Your task to perform on an android device: change alarm snooze length Image 0: 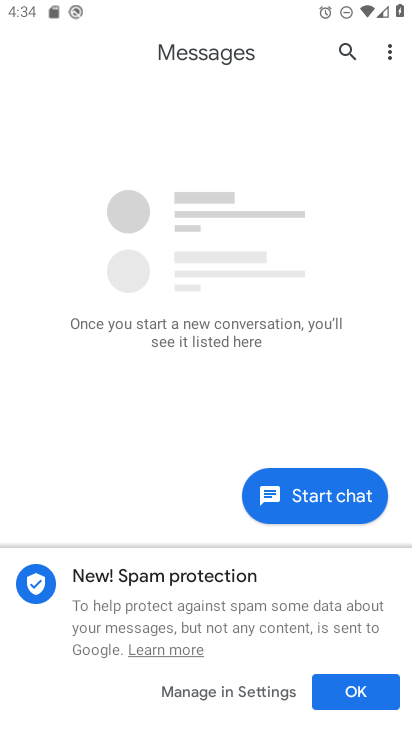
Step 0: press home button
Your task to perform on an android device: change alarm snooze length Image 1: 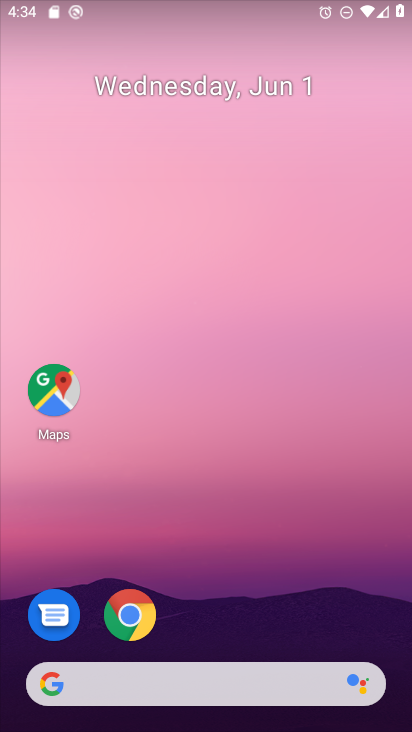
Step 1: click (221, 626)
Your task to perform on an android device: change alarm snooze length Image 2: 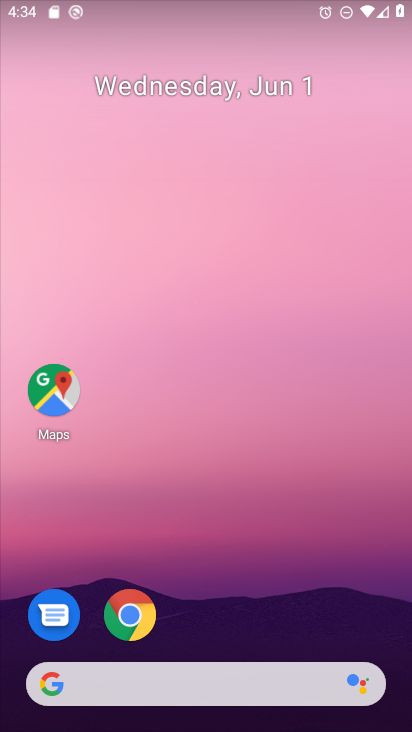
Step 2: click (221, 547)
Your task to perform on an android device: change alarm snooze length Image 3: 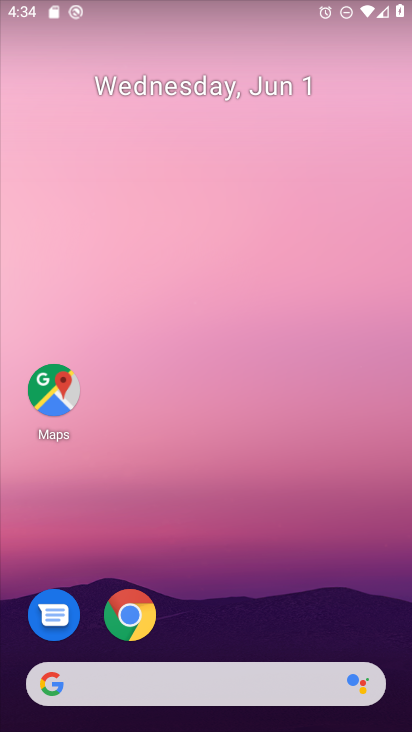
Step 3: drag from (221, 176) to (227, 71)
Your task to perform on an android device: change alarm snooze length Image 4: 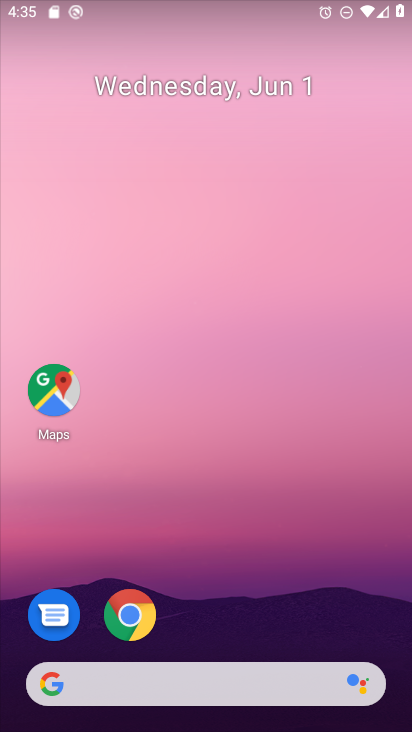
Step 4: drag from (224, 617) to (259, 50)
Your task to perform on an android device: change alarm snooze length Image 5: 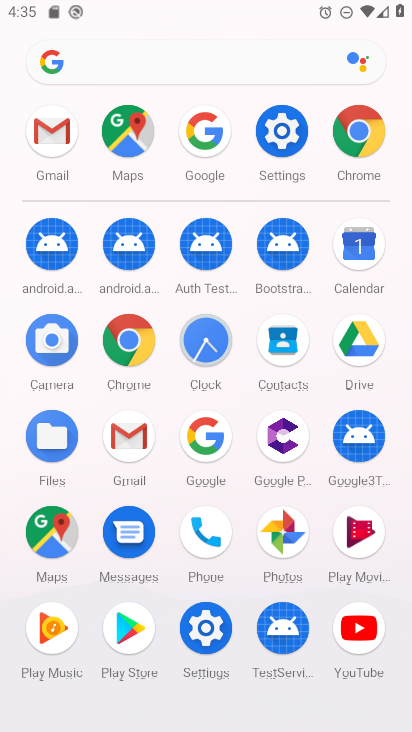
Step 5: click (205, 342)
Your task to perform on an android device: change alarm snooze length Image 6: 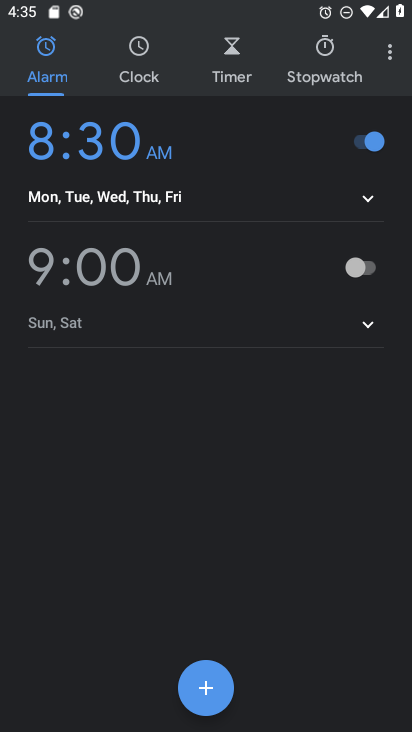
Step 6: click (386, 53)
Your task to perform on an android device: change alarm snooze length Image 7: 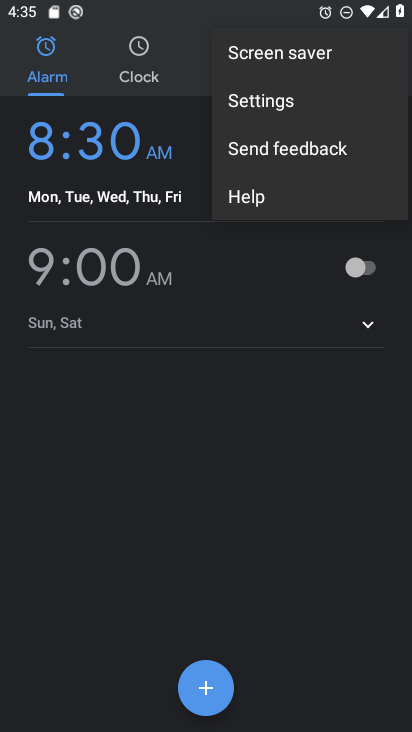
Step 7: click (293, 94)
Your task to perform on an android device: change alarm snooze length Image 8: 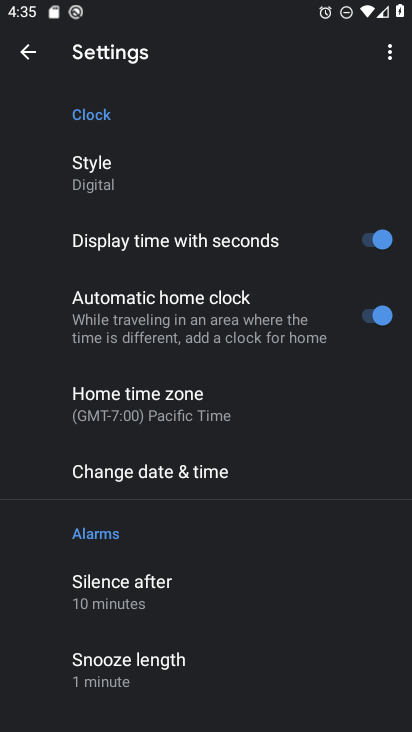
Step 8: click (168, 678)
Your task to perform on an android device: change alarm snooze length Image 9: 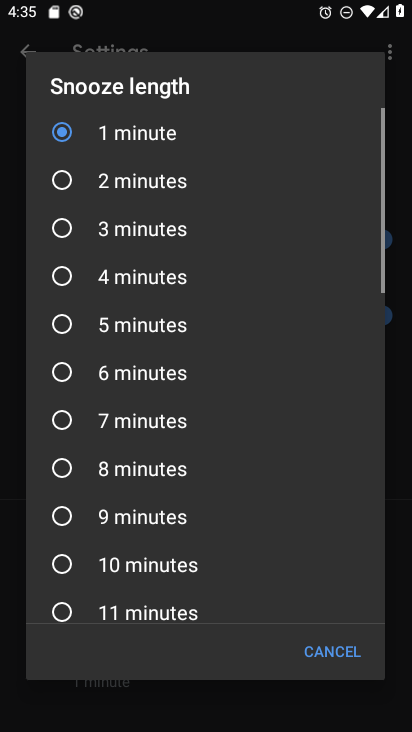
Step 9: click (78, 229)
Your task to perform on an android device: change alarm snooze length Image 10: 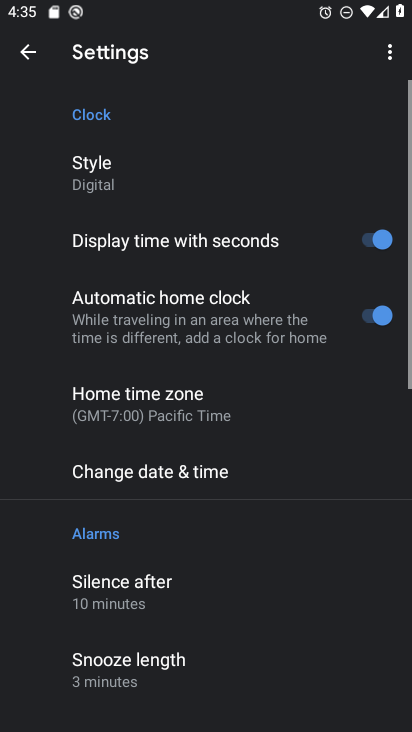
Step 10: task complete